Your task to perform on an android device: search for starred emails in the gmail app Image 0: 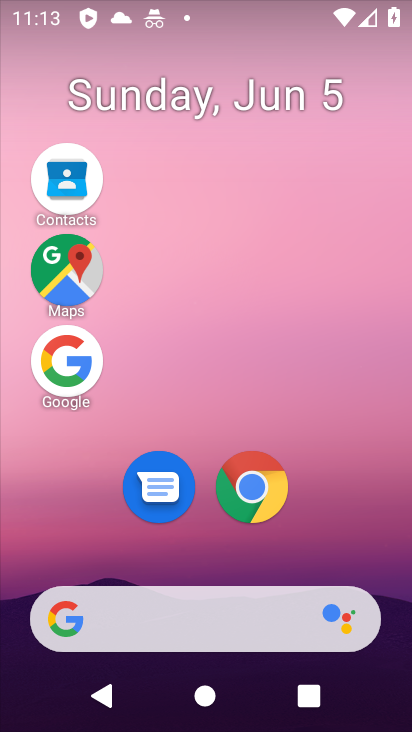
Step 0: drag from (214, 634) to (221, 6)
Your task to perform on an android device: search for starred emails in the gmail app Image 1: 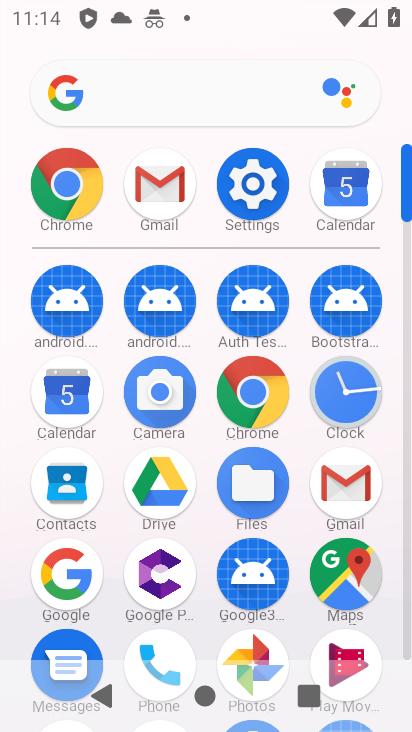
Step 1: click (355, 504)
Your task to perform on an android device: search for starred emails in the gmail app Image 2: 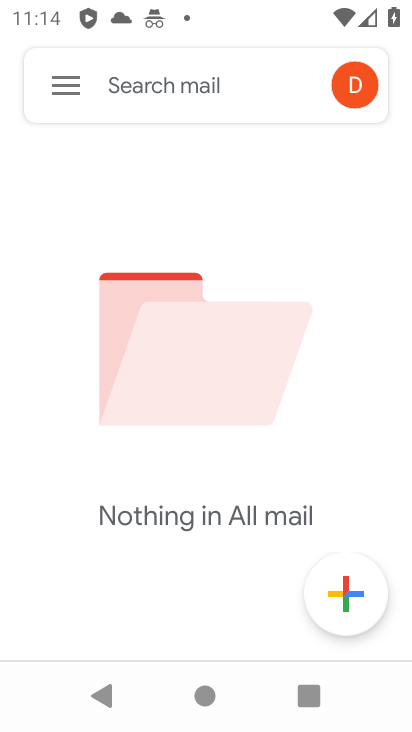
Step 2: click (59, 87)
Your task to perform on an android device: search for starred emails in the gmail app Image 3: 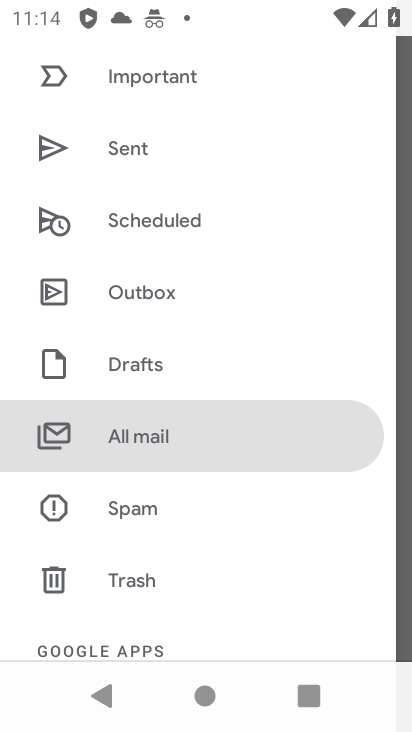
Step 3: drag from (145, 302) to (152, 615)
Your task to perform on an android device: search for starred emails in the gmail app Image 4: 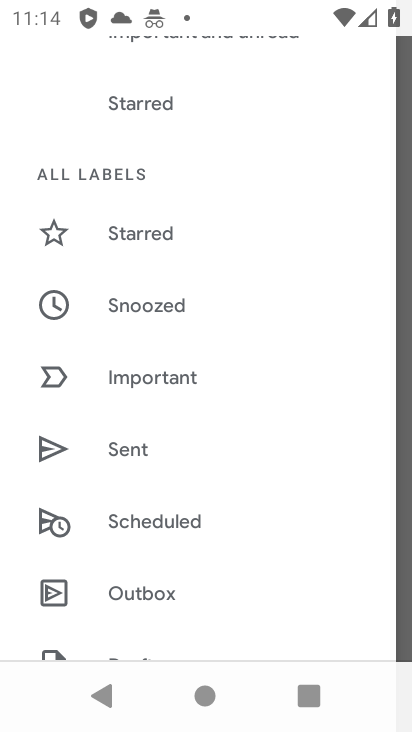
Step 4: click (153, 239)
Your task to perform on an android device: search for starred emails in the gmail app Image 5: 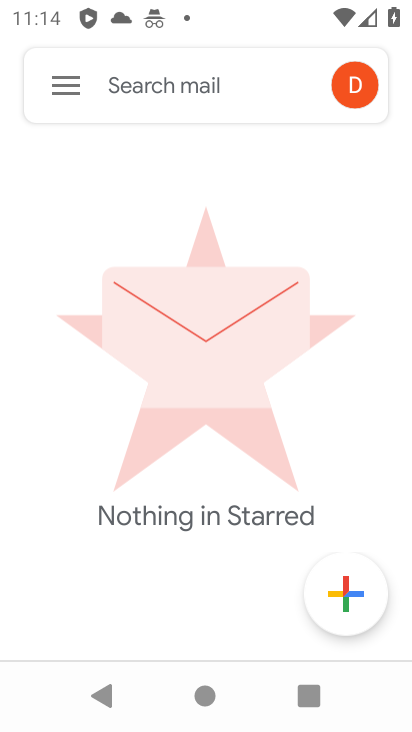
Step 5: click (71, 96)
Your task to perform on an android device: search for starred emails in the gmail app Image 6: 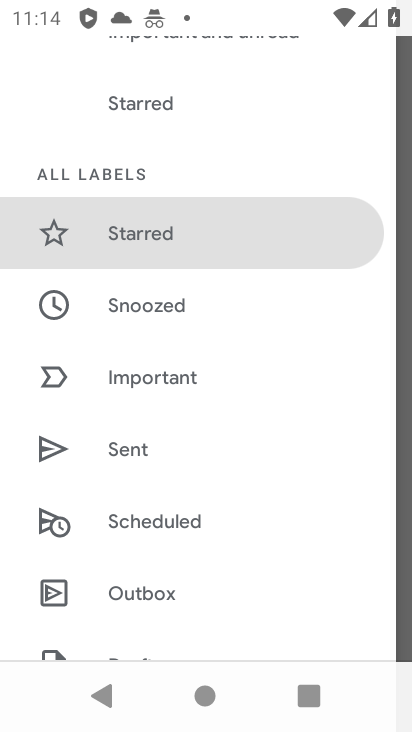
Step 6: task complete